Your task to perform on an android device: turn vacation reply on in the gmail app Image 0: 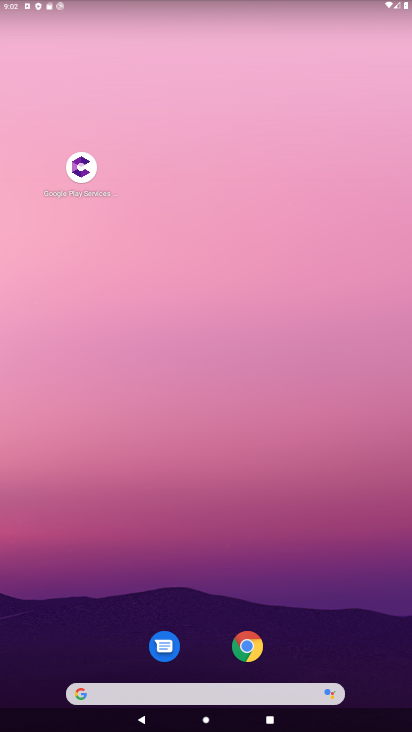
Step 0: drag from (292, 714) to (352, 47)
Your task to perform on an android device: turn vacation reply on in the gmail app Image 1: 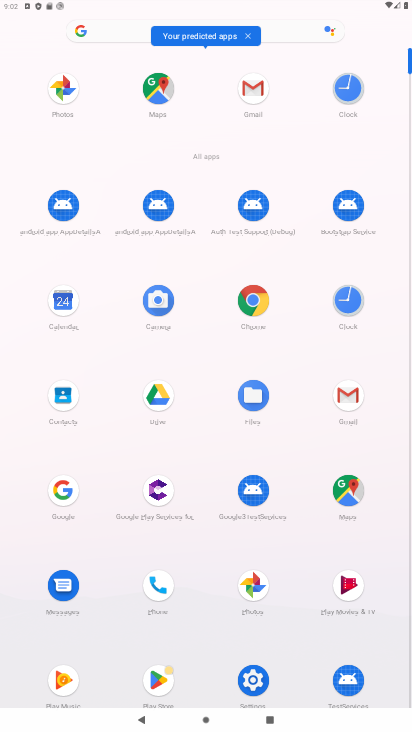
Step 1: click (346, 399)
Your task to perform on an android device: turn vacation reply on in the gmail app Image 2: 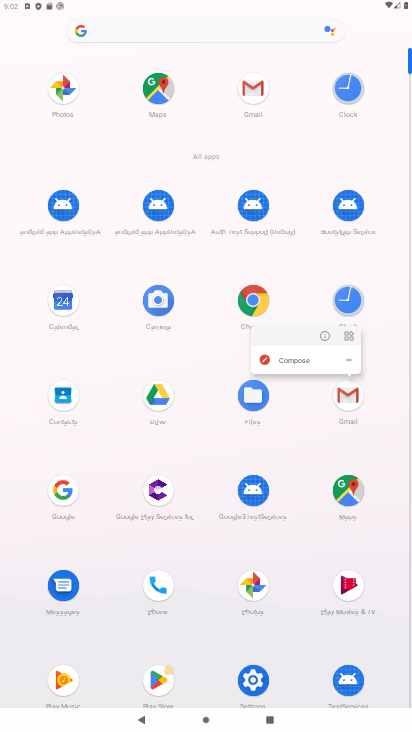
Step 2: drag from (341, 397) to (221, 332)
Your task to perform on an android device: turn vacation reply on in the gmail app Image 3: 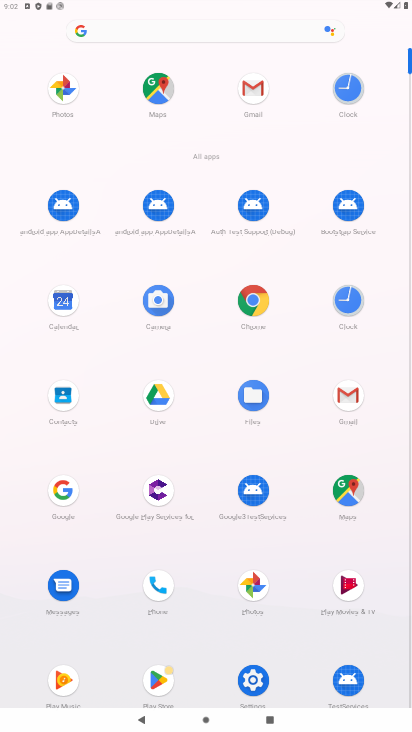
Step 3: drag from (347, 394) to (283, 644)
Your task to perform on an android device: turn vacation reply on in the gmail app Image 4: 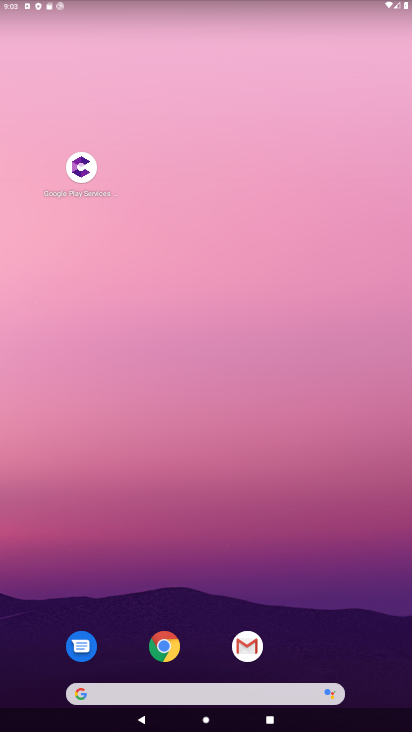
Step 4: click (253, 641)
Your task to perform on an android device: turn vacation reply on in the gmail app Image 5: 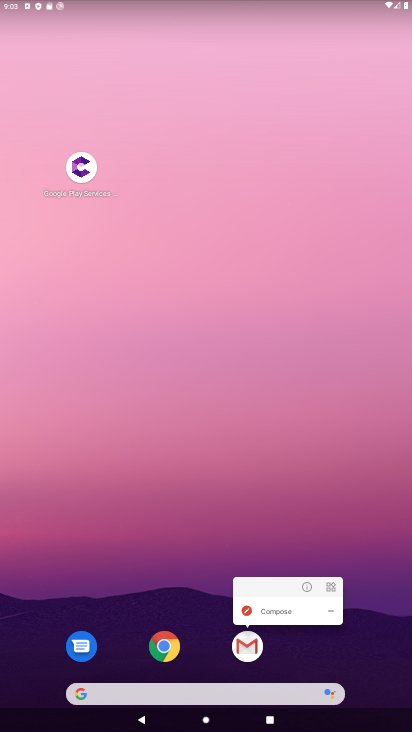
Step 5: click (254, 641)
Your task to perform on an android device: turn vacation reply on in the gmail app Image 6: 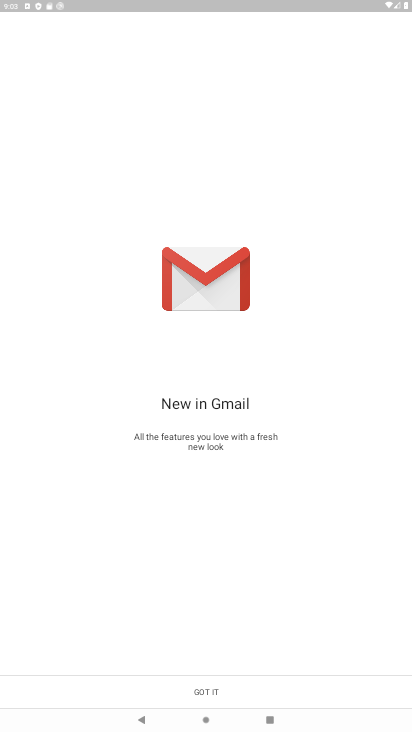
Step 6: click (263, 690)
Your task to perform on an android device: turn vacation reply on in the gmail app Image 7: 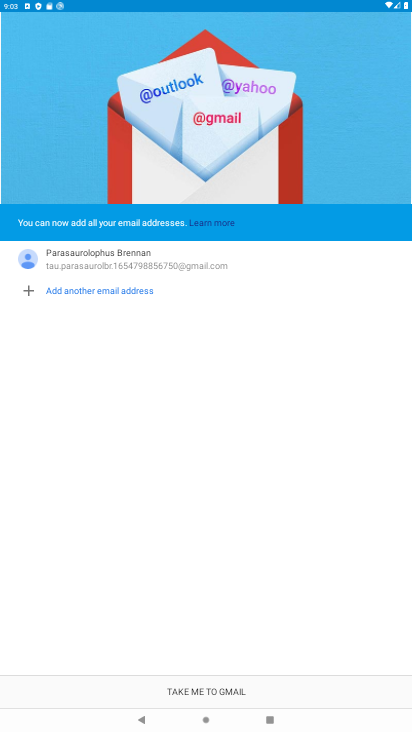
Step 7: click (252, 682)
Your task to perform on an android device: turn vacation reply on in the gmail app Image 8: 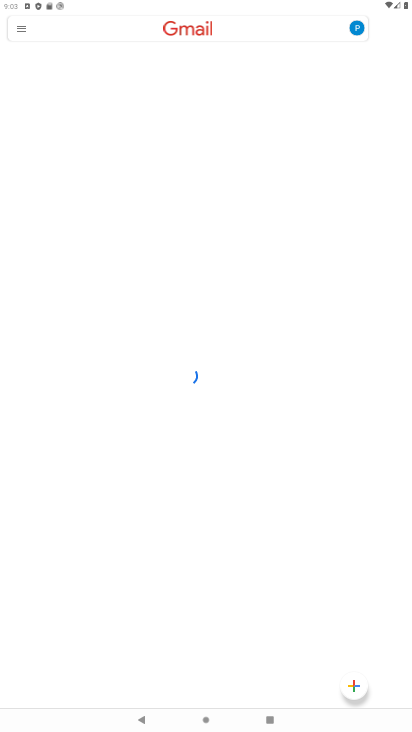
Step 8: click (56, 31)
Your task to perform on an android device: turn vacation reply on in the gmail app Image 9: 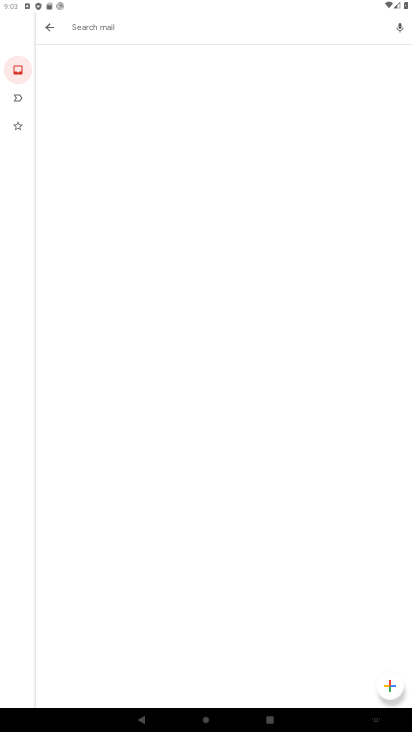
Step 9: click (43, 26)
Your task to perform on an android device: turn vacation reply on in the gmail app Image 10: 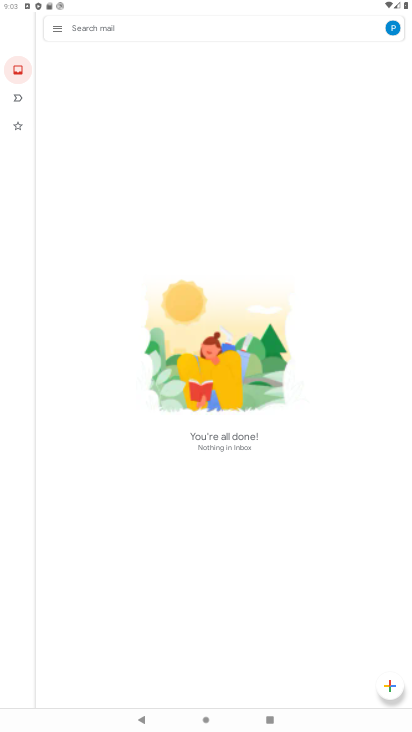
Step 10: click (62, 15)
Your task to perform on an android device: turn vacation reply on in the gmail app Image 11: 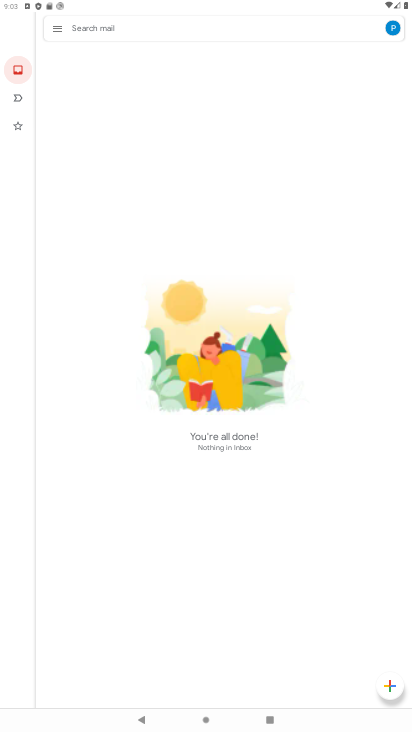
Step 11: click (56, 29)
Your task to perform on an android device: turn vacation reply on in the gmail app Image 12: 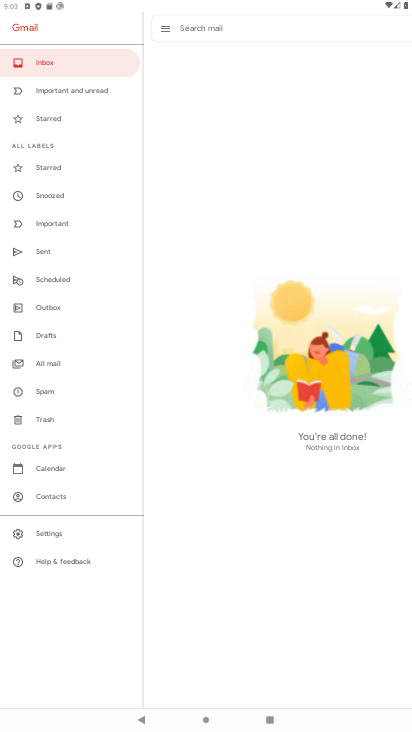
Step 12: click (53, 529)
Your task to perform on an android device: turn vacation reply on in the gmail app Image 13: 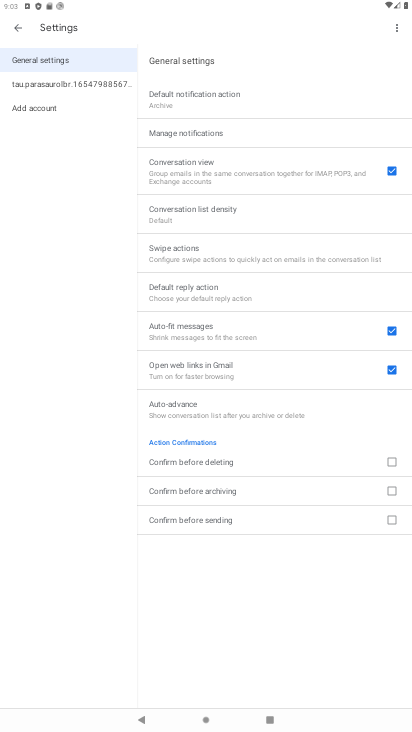
Step 13: click (73, 83)
Your task to perform on an android device: turn vacation reply on in the gmail app Image 14: 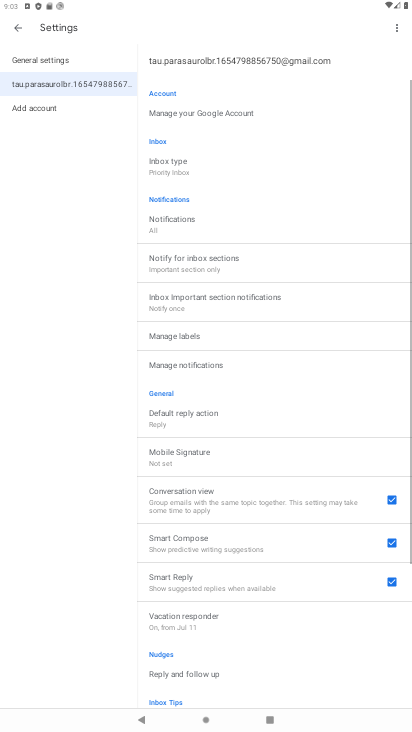
Step 14: click (218, 618)
Your task to perform on an android device: turn vacation reply on in the gmail app Image 15: 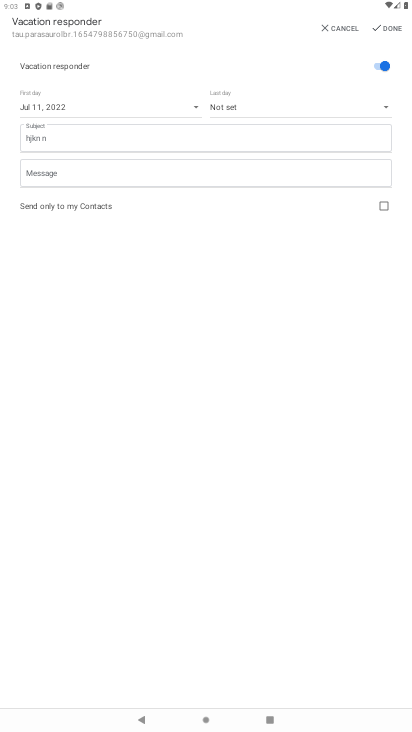
Step 15: task complete